Your task to perform on an android device: all mails in gmail Image 0: 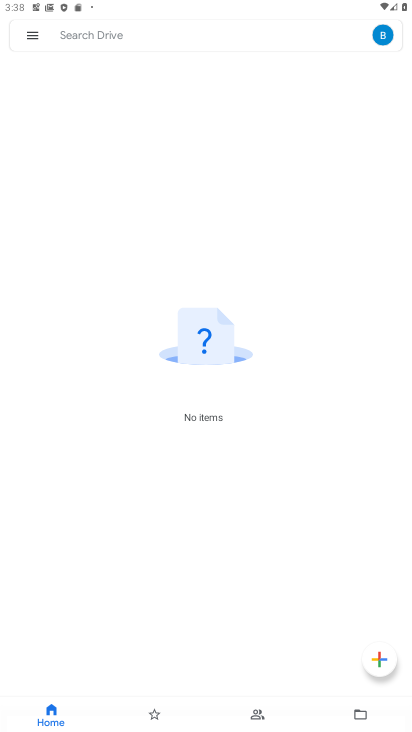
Step 0: press home button
Your task to perform on an android device: all mails in gmail Image 1: 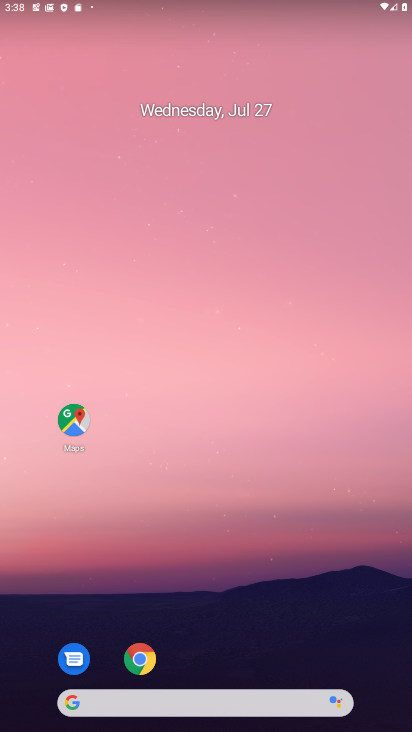
Step 1: drag from (105, 695) to (176, 296)
Your task to perform on an android device: all mails in gmail Image 2: 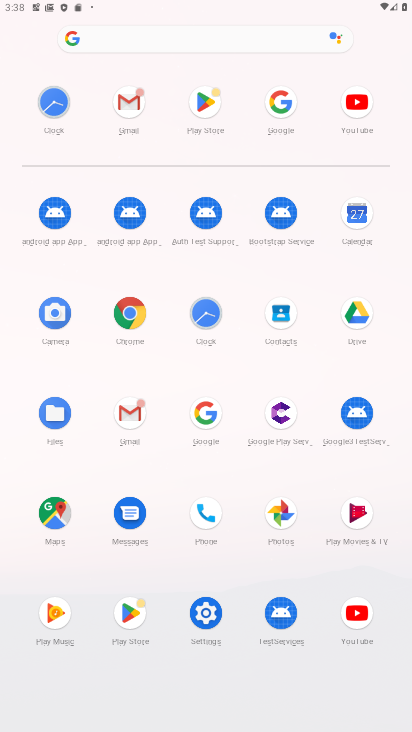
Step 2: click (119, 101)
Your task to perform on an android device: all mails in gmail Image 3: 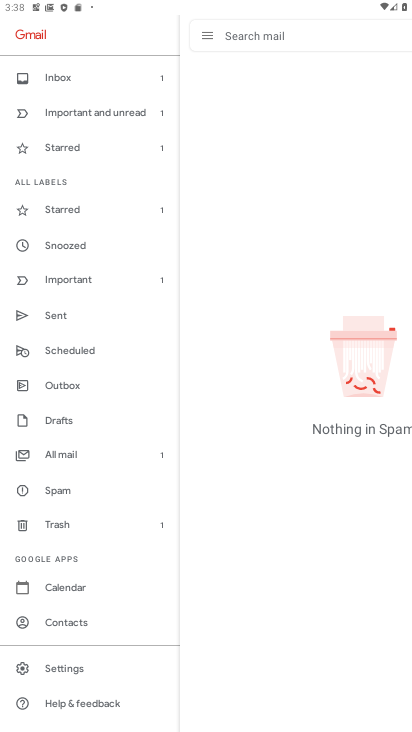
Step 3: click (58, 451)
Your task to perform on an android device: all mails in gmail Image 4: 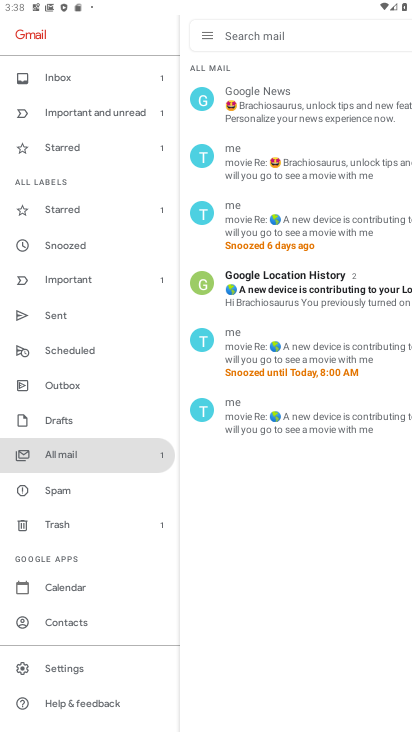
Step 4: task complete